Your task to perform on an android device: Open the calendar and show me this week's events Image 0: 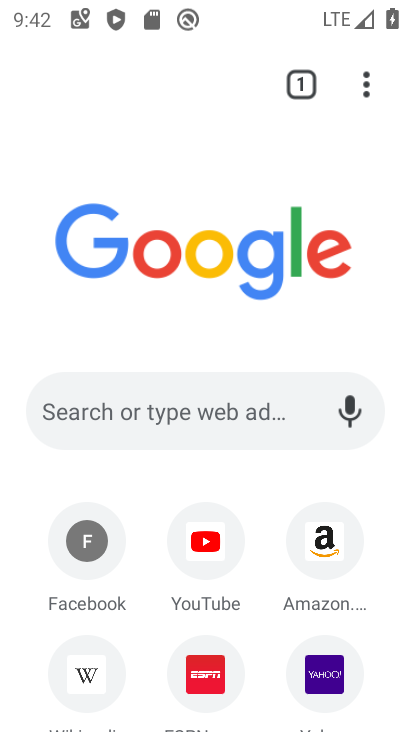
Step 0: press home button
Your task to perform on an android device: Open the calendar and show me this week's events Image 1: 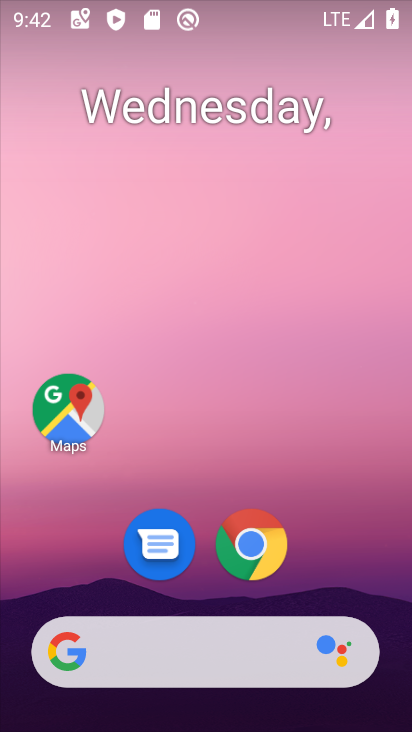
Step 1: click (199, 128)
Your task to perform on an android device: Open the calendar and show me this week's events Image 2: 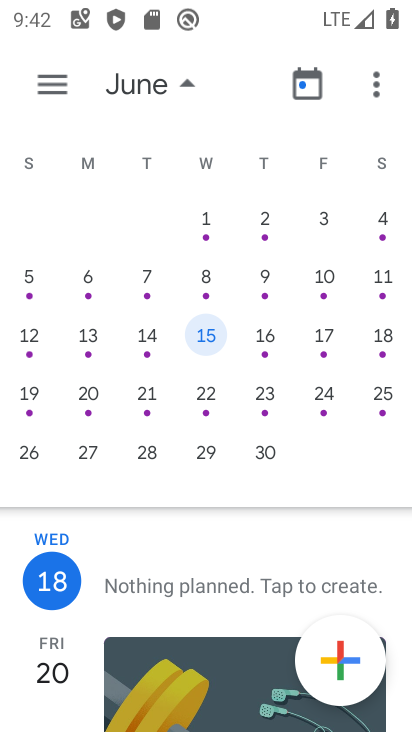
Step 2: task complete